Your task to perform on an android device: find photos in the google photos app Image 0: 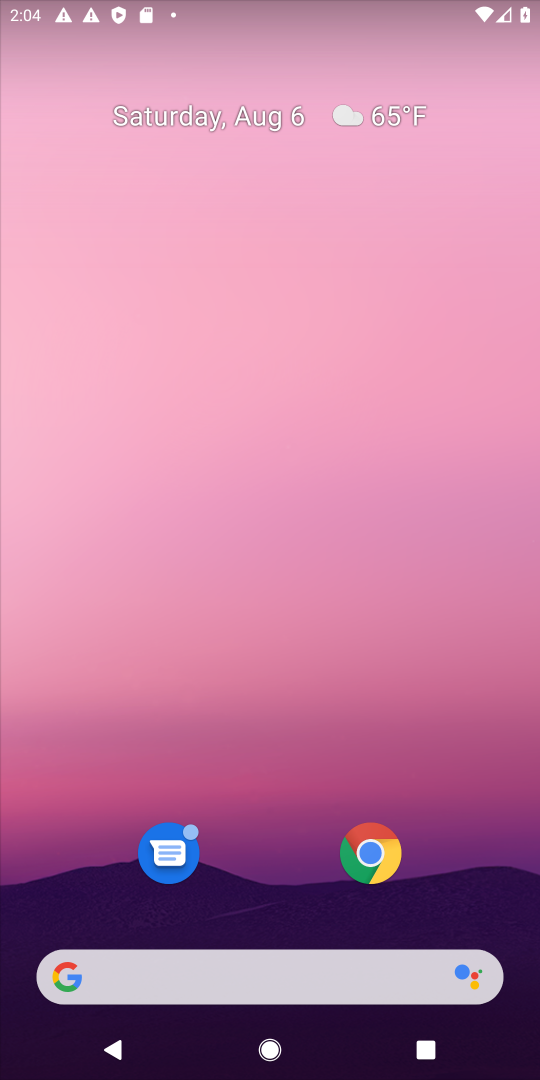
Step 0: drag from (266, 794) to (264, 0)
Your task to perform on an android device: find photos in the google photos app Image 1: 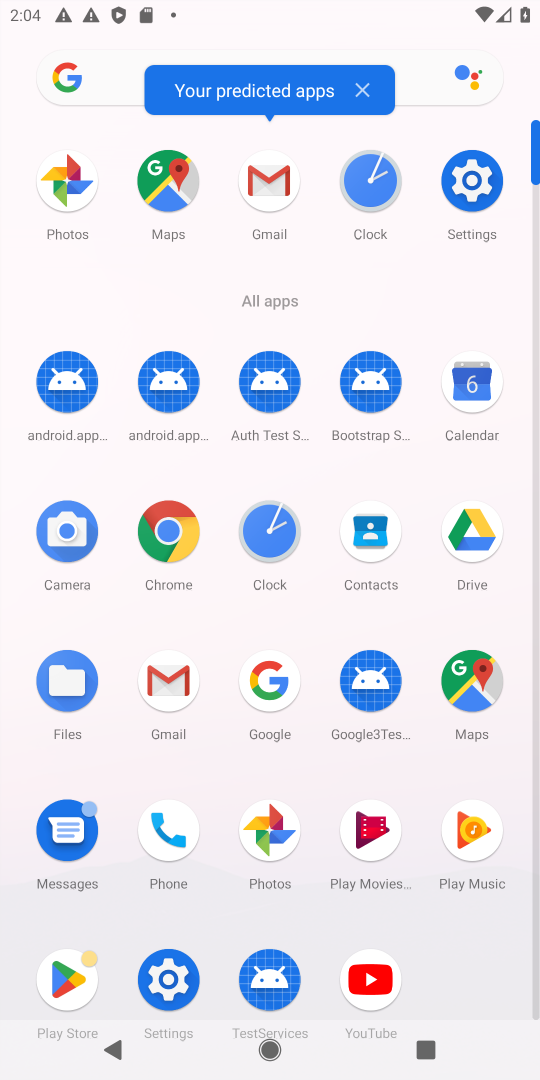
Step 1: click (271, 829)
Your task to perform on an android device: find photos in the google photos app Image 2: 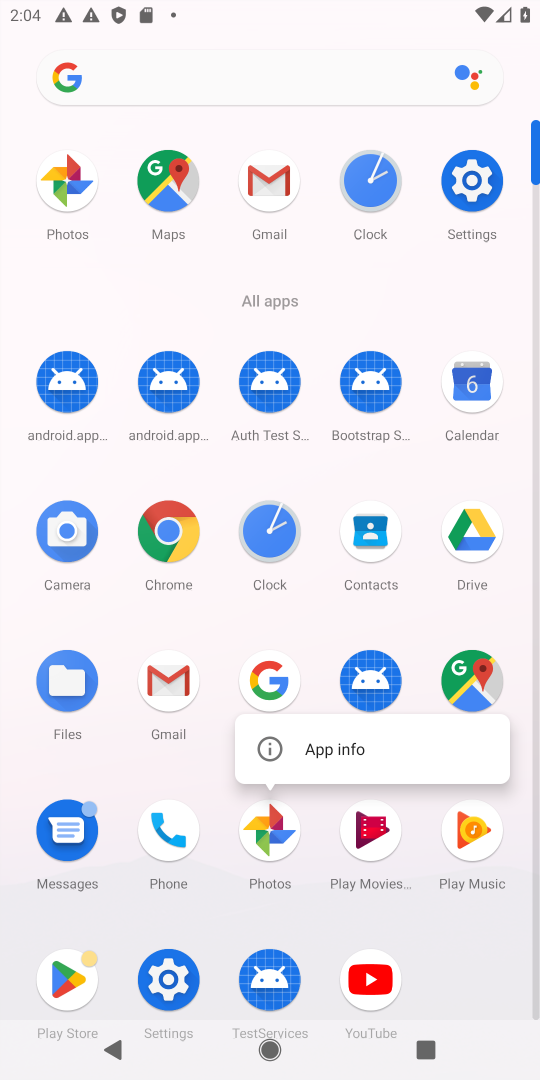
Step 2: click (274, 832)
Your task to perform on an android device: find photos in the google photos app Image 3: 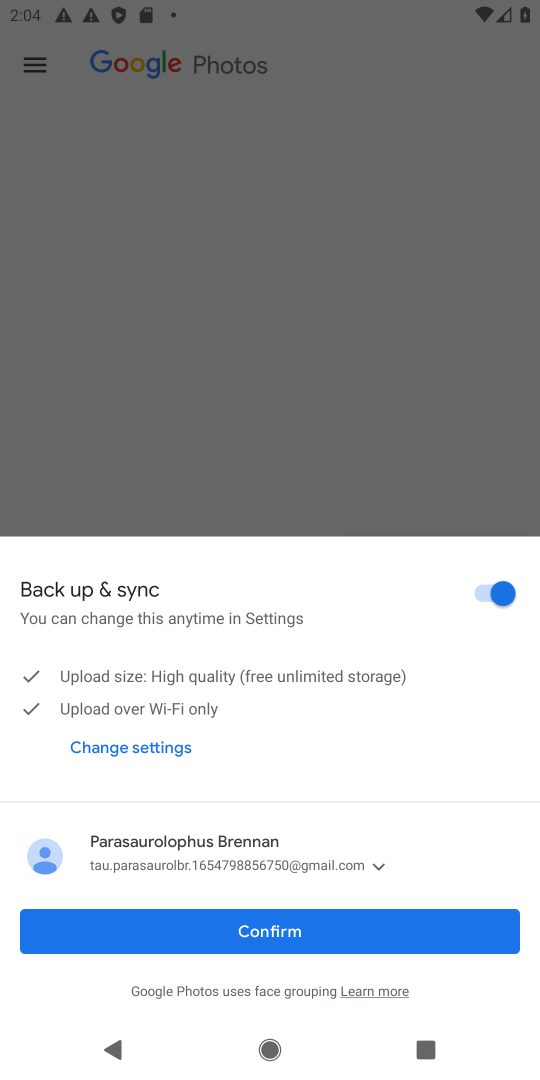
Step 3: click (246, 928)
Your task to perform on an android device: find photos in the google photos app Image 4: 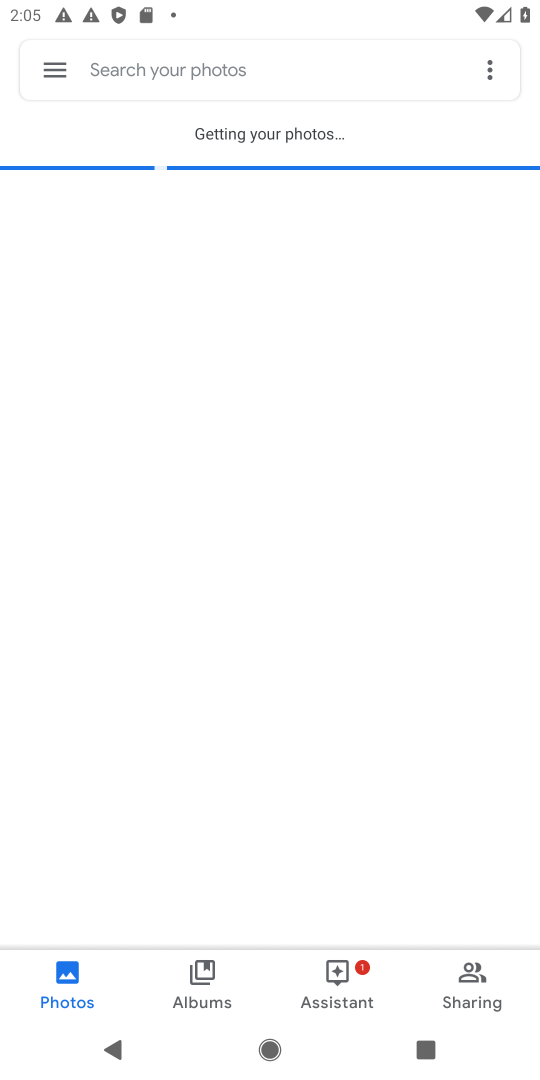
Step 4: task complete